Your task to perform on an android device: Go to notification settings Image 0: 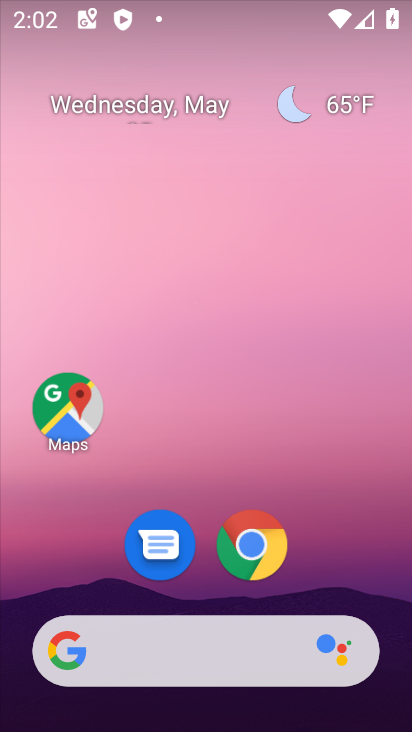
Step 0: drag from (347, 519) to (196, 83)
Your task to perform on an android device: Go to notification settings Image 1: 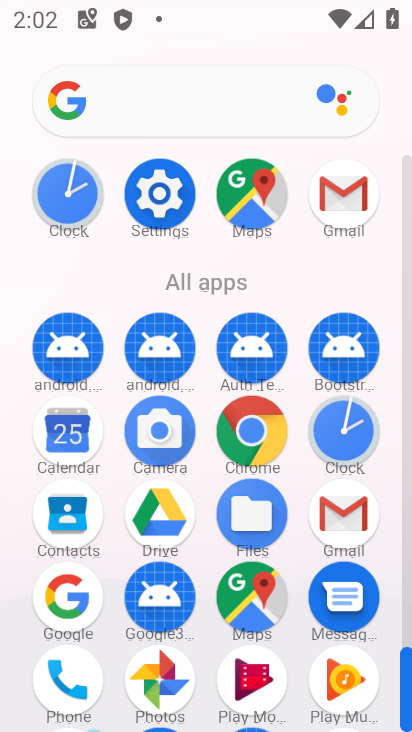
Step 1: click (163, 206)
Your task to perform on an android device: Go to notification settings Image 2: 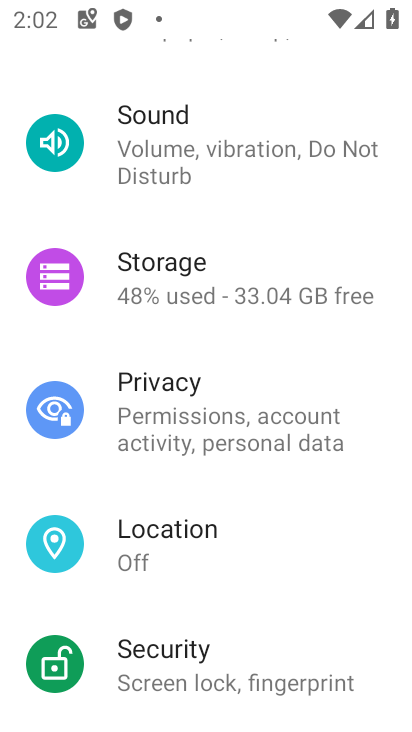
Step 2: drag from (251, 209) to (182, 729)
Your task to perform on an android device: Go to notification settings Image 3: 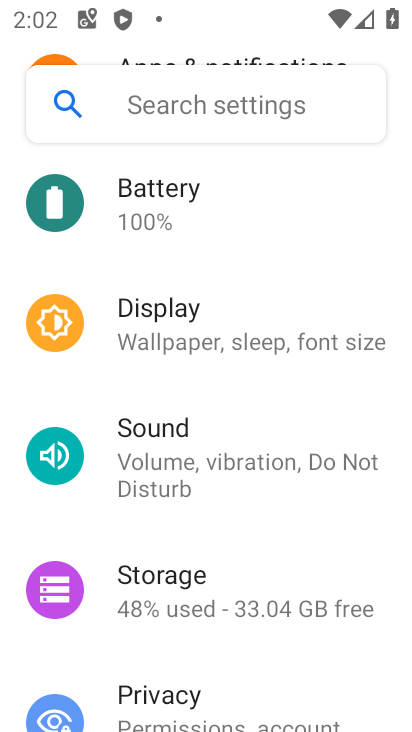
Step 3: drag from (251, 278) to (247, 630)
Your task to perform on an android device: Go to notification settings Image 4: 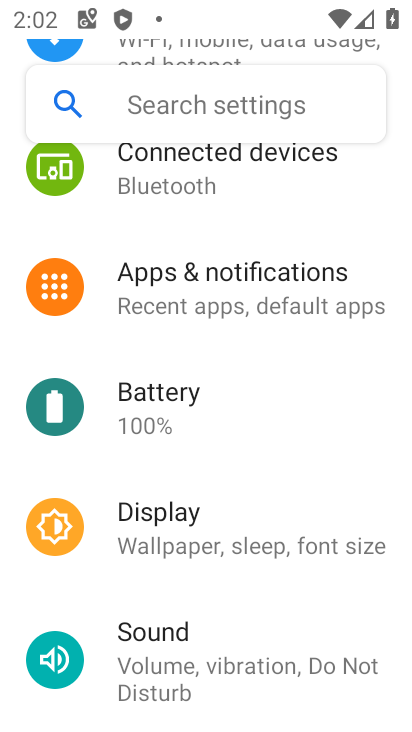
Step 4: click (243, 287)
Your task to perform on an android device: Go to notification settings Image 5: 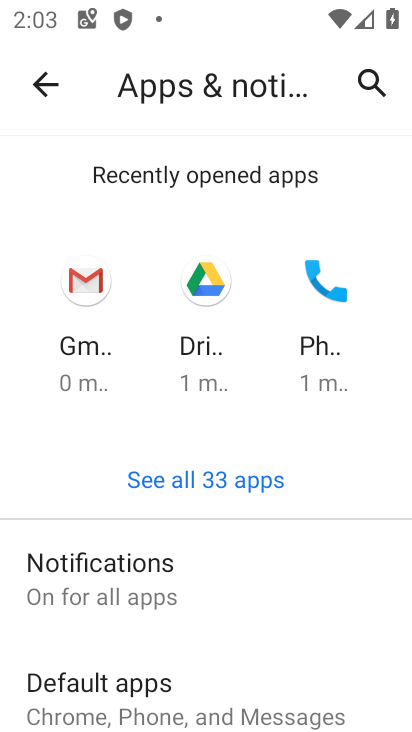
Step 5: task complete